Your task to perform on an android device: turn vacation reply on in the gmail app Image 0: 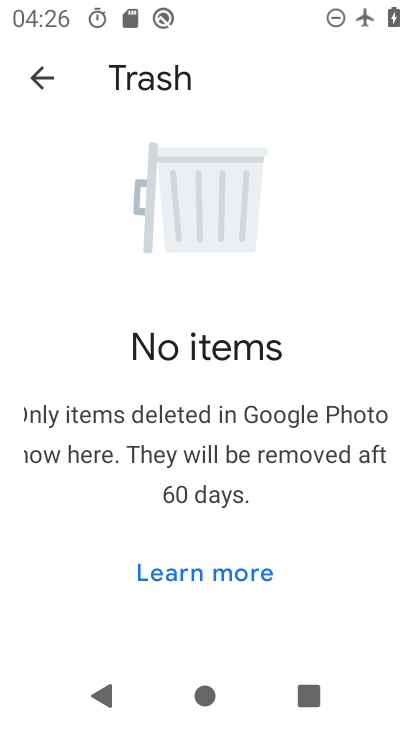
Step 0: press back button
Your task to perform on an android device: turn vacation reply on in the gmail app Image 1: 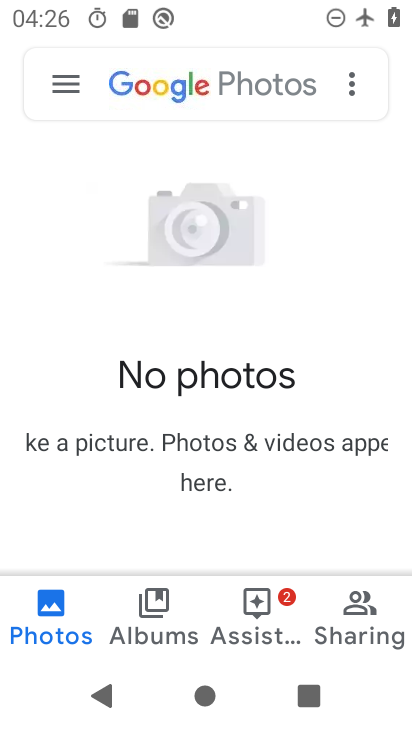
Step 1: press back button
Your task to perform on an android device: turn vacation reply on in the gmail app Image 2: 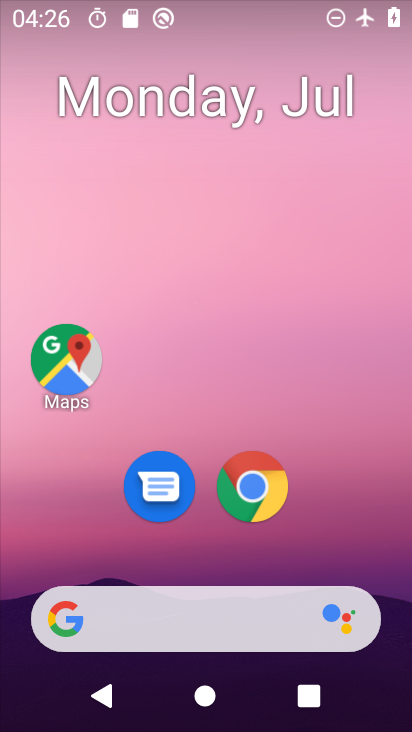
Step 2: drag from (152, 544) to (239, 23)
Your task to perform on an android device: turn vacation reply on in the gmail app Image 3: 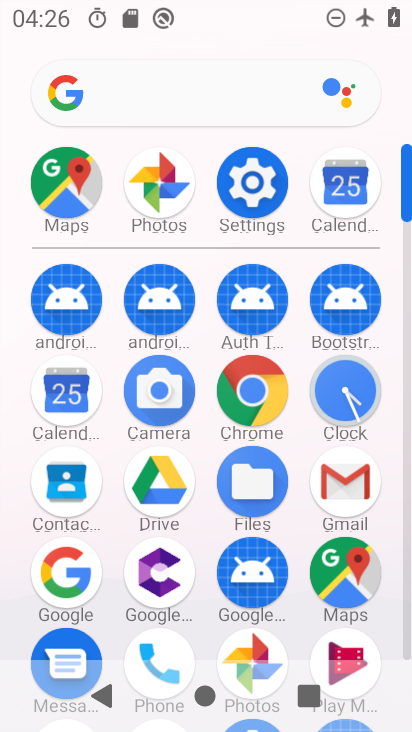
Step 3: click (343, 472)
Your task to perform on an android device: turn vacation reply on in the gmail app Image 4: 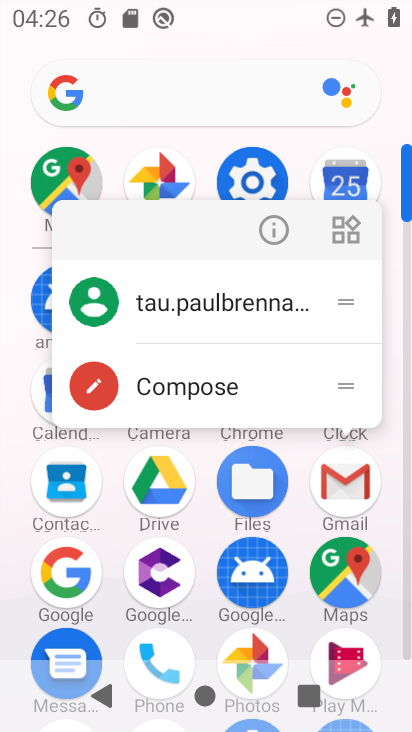
Step 4: click (320, 496)
Your task to perform on an android device: turn vacation reply on in the gmail app Image 5: 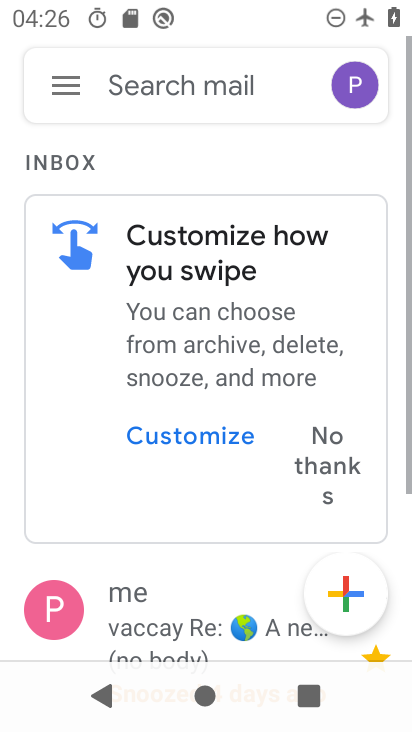
Step 5: click (66, 79)
Your task to perform on an android device: turn vacation reply on in the gmail app Image 6: 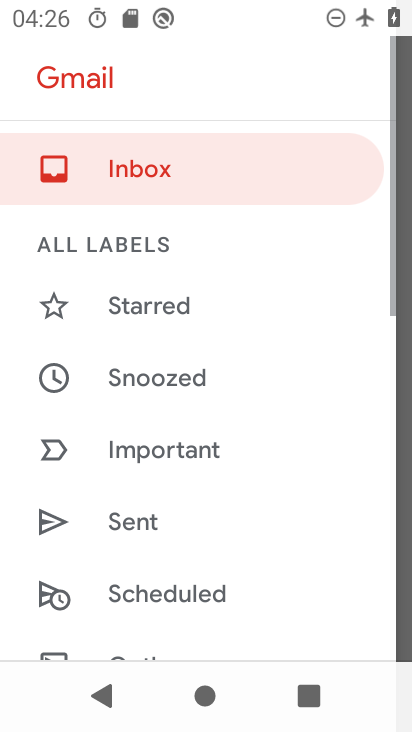
Step 6: drag from (184, 599) to (252, 40)
Your task to perform on an android device: turn vacation reply on in the gmail app Image 7: 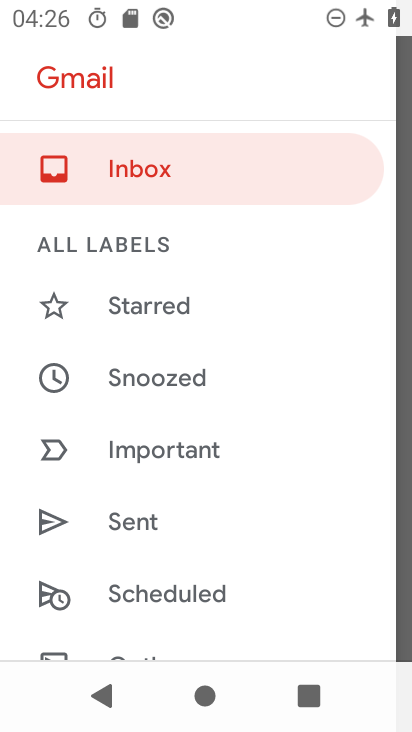
Step 7: drag from (131, 567) to (261, 26)
Your task to perform on an android device: turn vacation reply on in the gmail app Image 8: 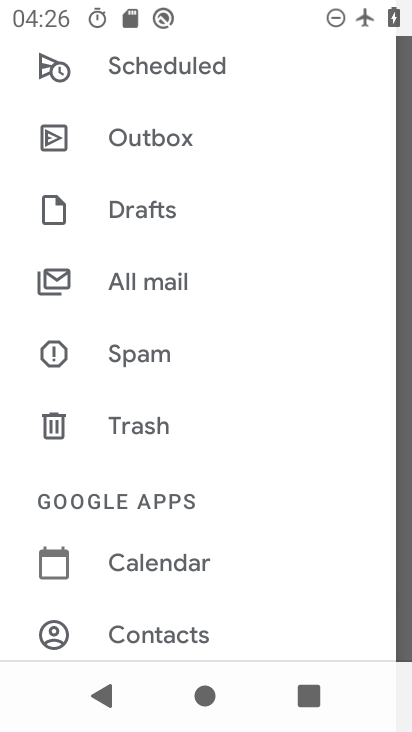
Step 8: drag from (124, 585) to (282, 42)
Your task to perform on an android device: turn vacation reply on in the gmail app Image 9: 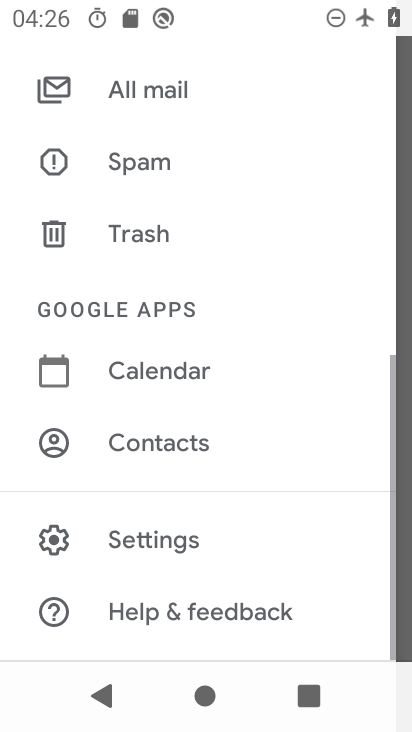
Step 9: click (148, 536)
Your task to perform on an android device: turn vacation reply on in the gmail app Image 10: 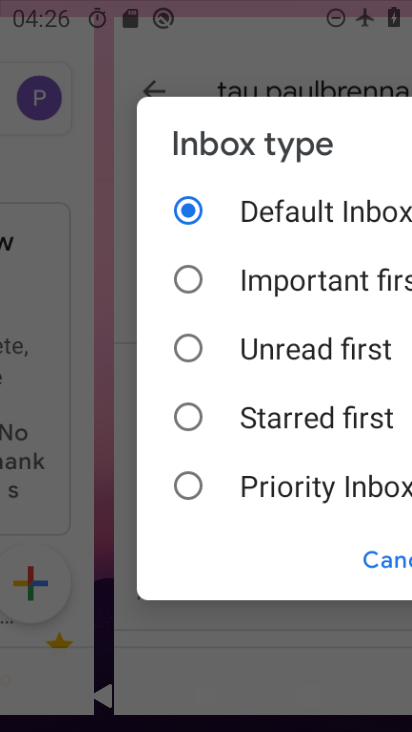
Step 10: drag from (128, 569) to (281, 16)
Your task to perform on an android device: turn vacation reply on in the gmail app Image 11: 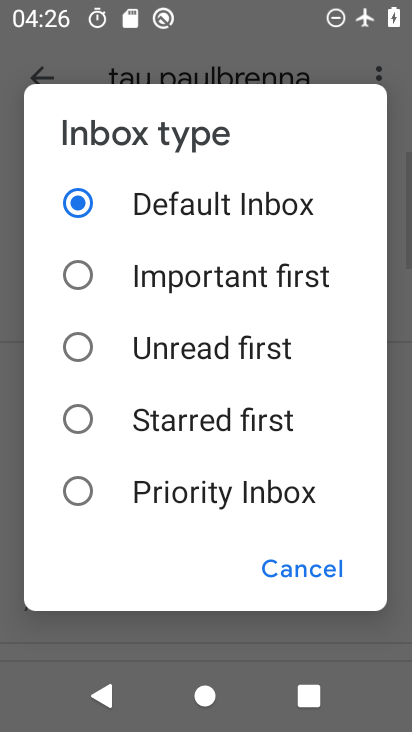
Step 11: click (278, 560)
Your task to perform on an android device: turn vacation reply on in the gmail app Image 12: 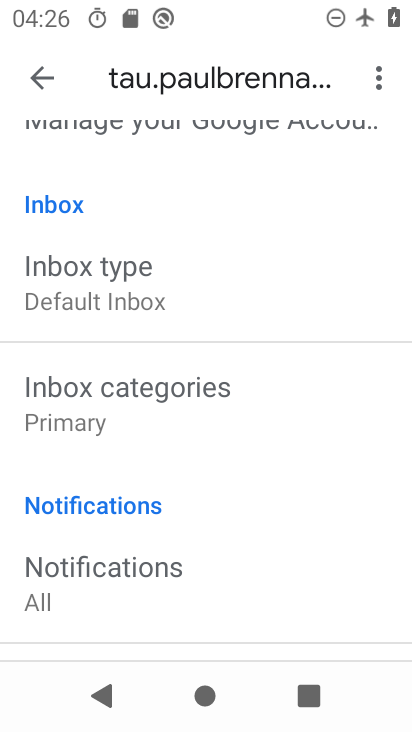
Step 12: drag from (248, 557) to (373, 10)
Your task to perform on an android device: turn vacation reply on in the gmail app Image 13: 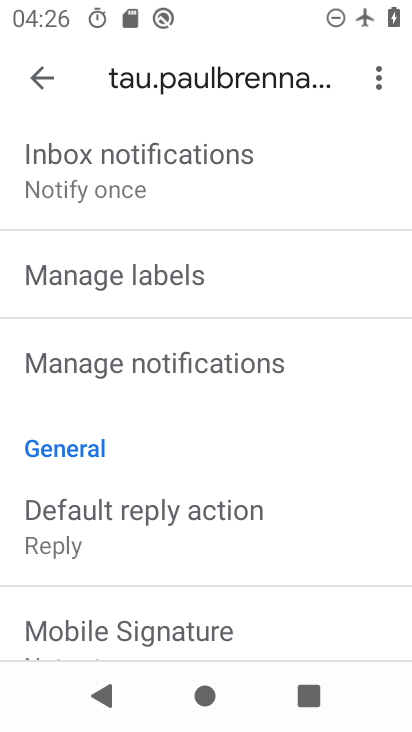
Step 13: drag from (176, 608) to (324, 4)
Your task to perform on an android device: turn vacation reply on in the gmail app Image 14: 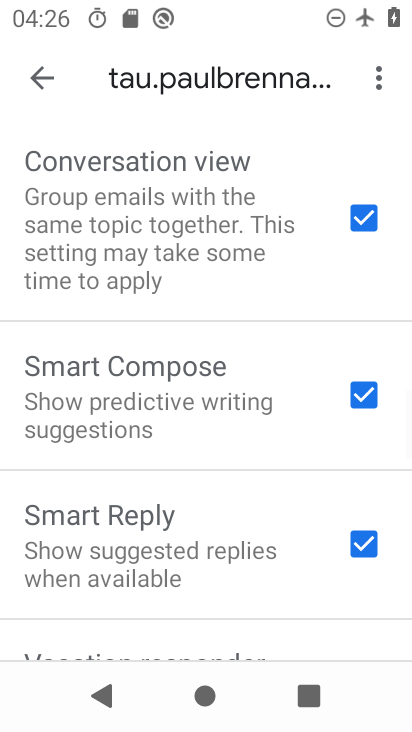
Step 14: drag from (50, 567) to (222, 87)
Your task to perform on an android device: turn vacation reply on in the gmail app Image 15: 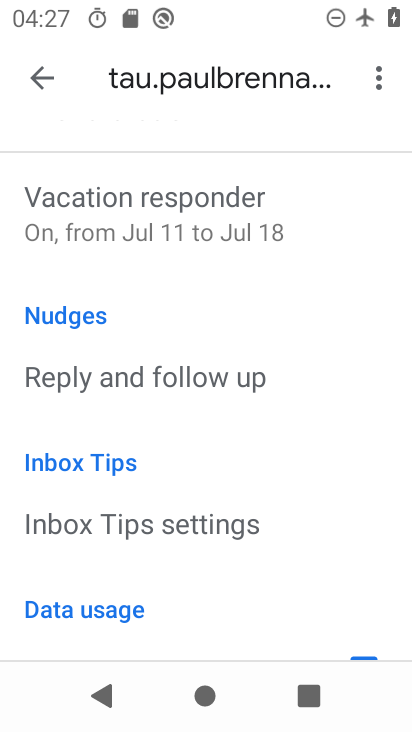
Step 15: click (105, 208)
Your task to perform on an android device: turn vacation reply on in the gmail app Image 16: 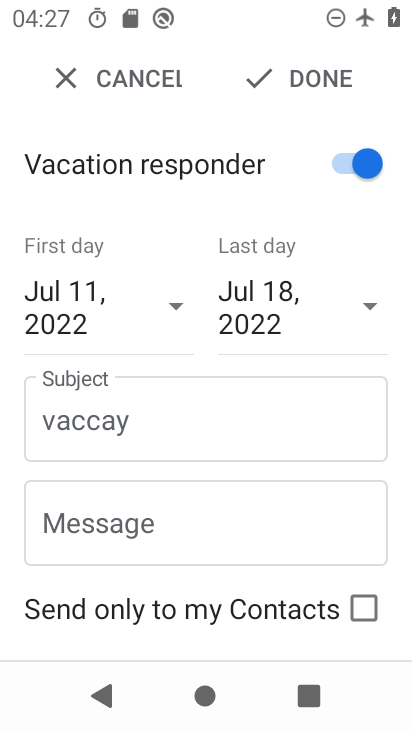
Step 16: task complete